Your task to perform on an android device: Open calendar and show me the first week of next month Image 0: 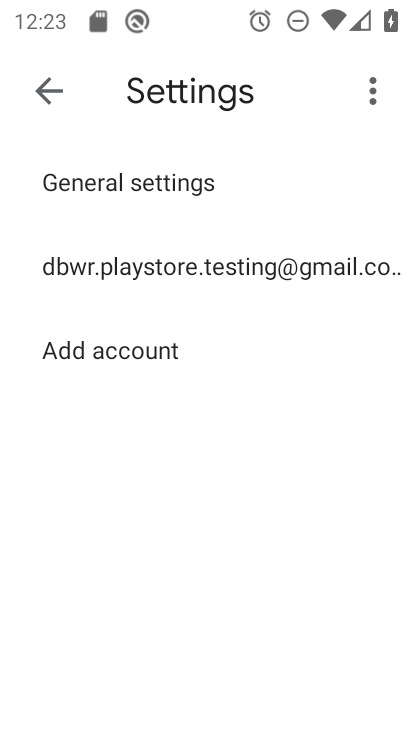
Step 0: press home button
Your task to perform on an android device: Open calendar and show me the first week of next month Image 1: 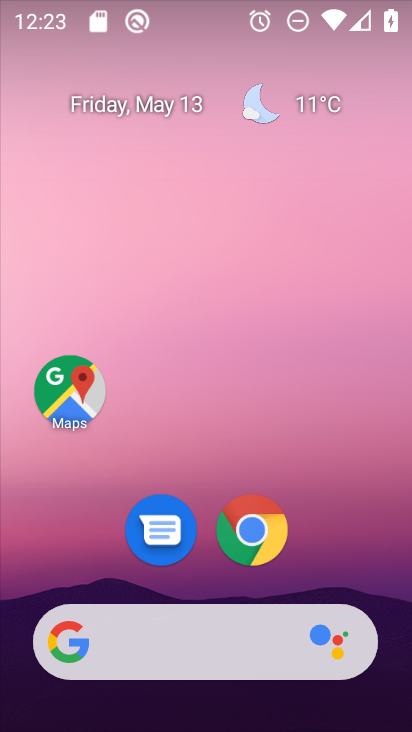
Step 1: drag from (182, 634) to (301, 184)
Your task to perform on an android device: Open calendar and show me the first week of next month Image 2: 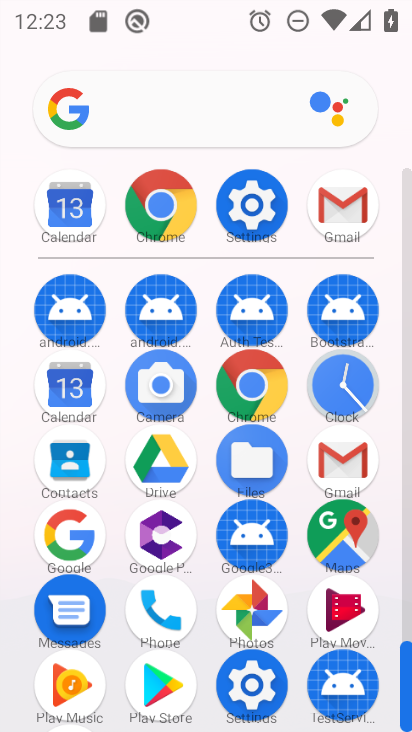
Step 2: click (67, 387)
Your task to perform on an android device: Open calendar and show me the first week of next month Image 3: 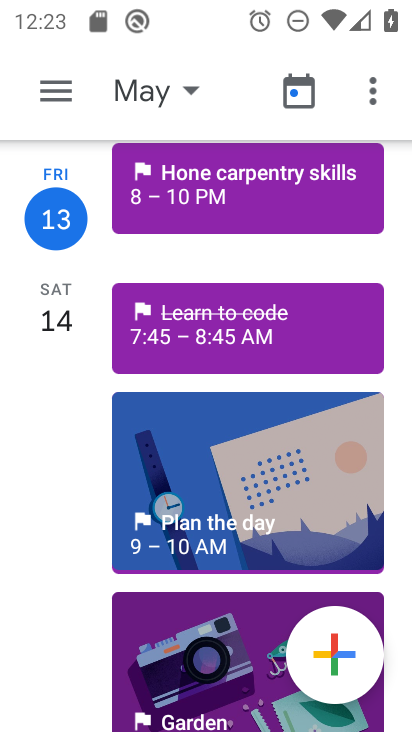
Step 3: click (139, 102)
Your task to perform on an android device: Open calendar and show me the first week of next month Image 4: 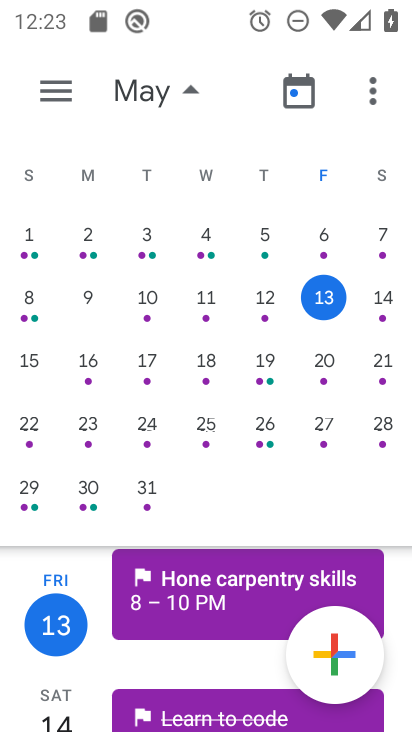
Step 4: drag from (346, 385) to (6, 361)
Your task to perform on an android device: Open calendar and show me the first week of next month Image 5: 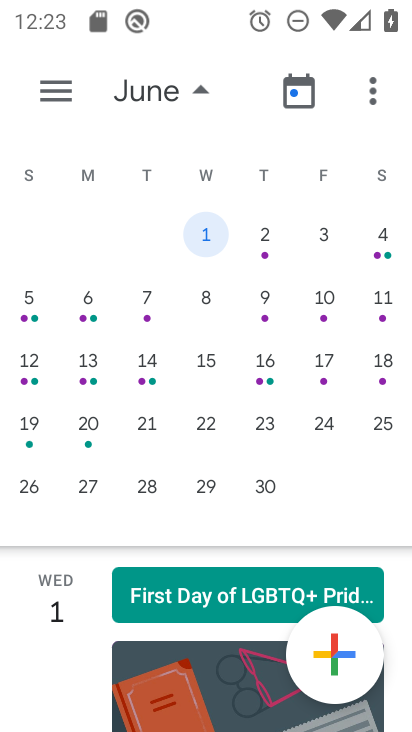
Step 5: click (208, 239)
Your task to perform on an android device: Open calendar and show me the first week of next month Image 6: 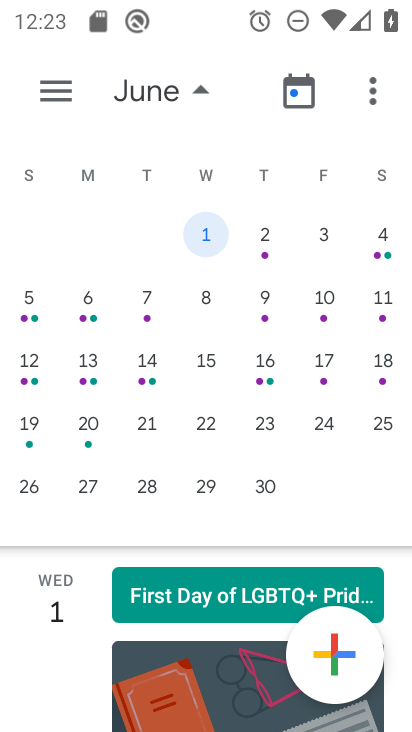
Step 6: click (208, 239)
Your task to perform on an android device: Open calendar and show me the first week of next month Image 7: 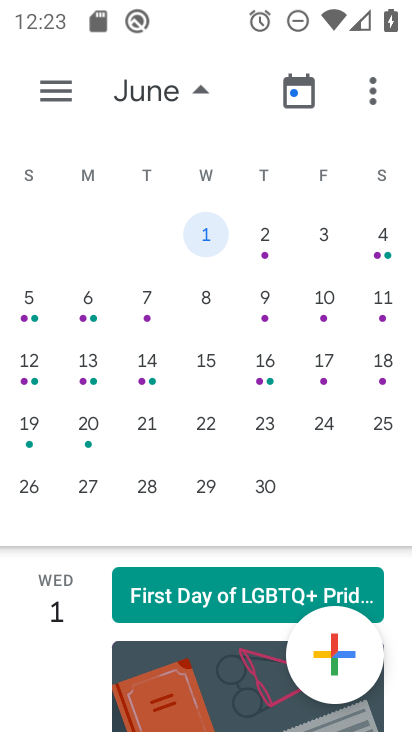
Step 7: click (59, 95)
Your task to perform on an android device: Open calendar and show me the first week of next month Image 8: 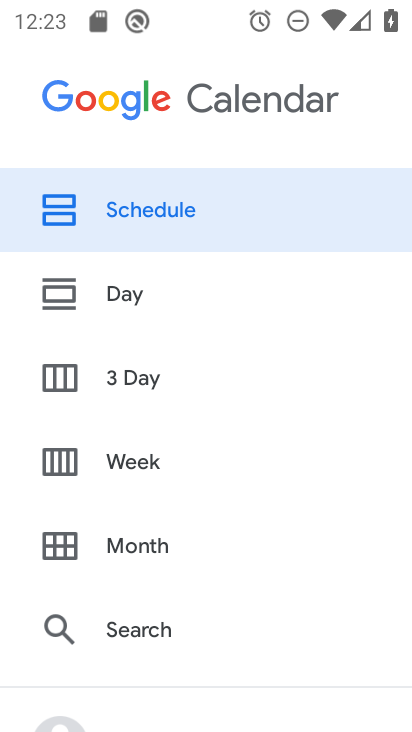
Step 8: click (144, 463)
Your task to perform on an android device: Open calendar and show me the first week of next month Image 9: 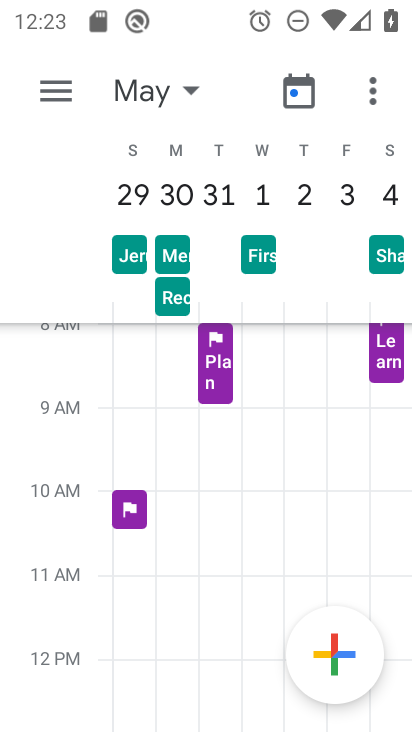
Step 9: task complete